Your task to perform on an android device: change keyboard looks Image 0: 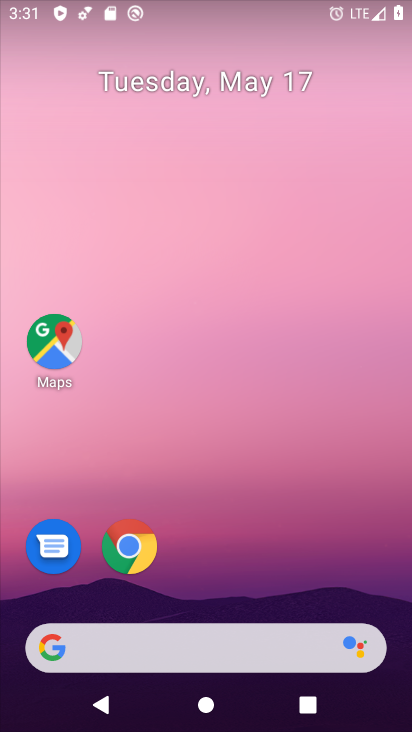
Step 0: drag from (361, 521) to (326, 45)
Your task to perform on an android device: change keyboard looks Image 1: 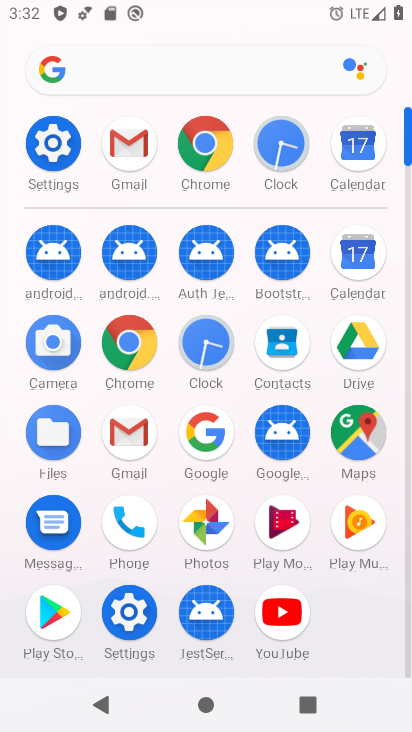
Step 1: click (38, 138)
Your task to perform on an android device: change keyboard looks Image 2: 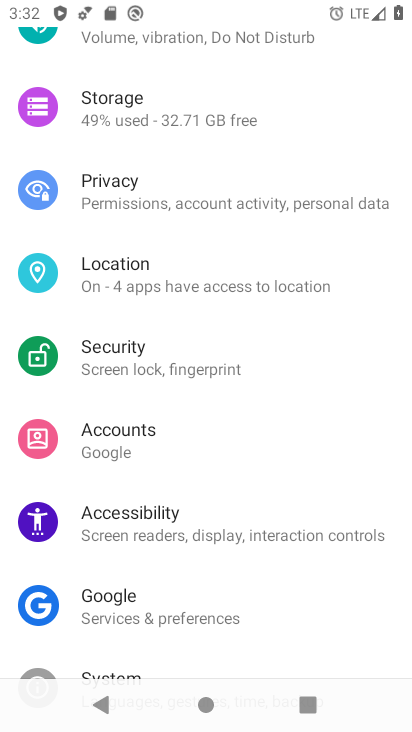
Step 2: drag from (148, 511) to (164, 372)
Your task to perform on an android device: change keyboard looks Image 3: 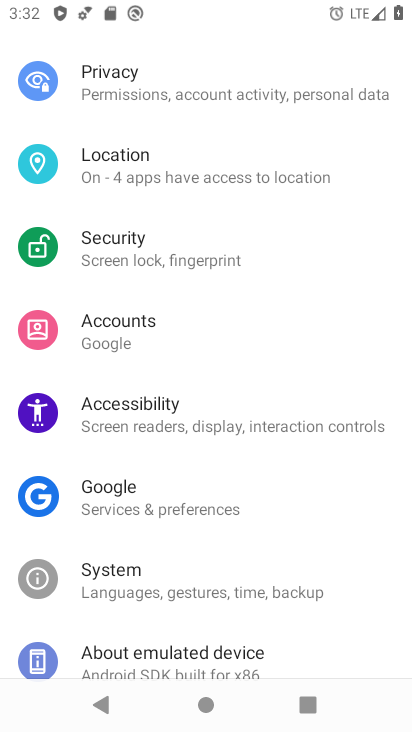
Step 3: click (130, 559)
Your task to perform on an android device: change keyboard looks Image 4: 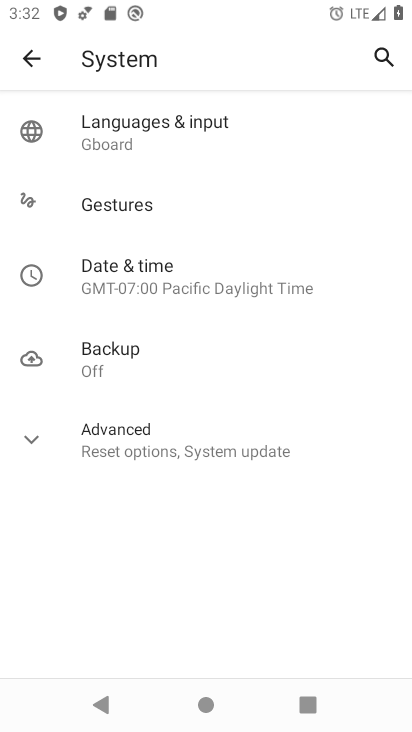
Step 4: click (157, 126)
Your task to perform on an android device: change keyboard looks Image 5: 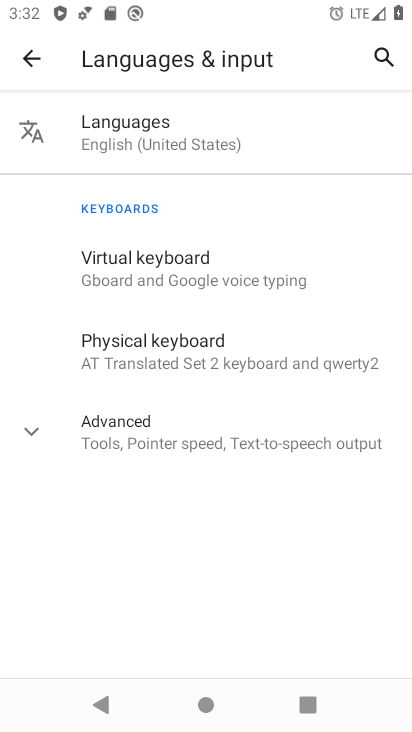
Step 5: click (149, 292)
Your task to perform on an android device: change keyboard looks Image 6: 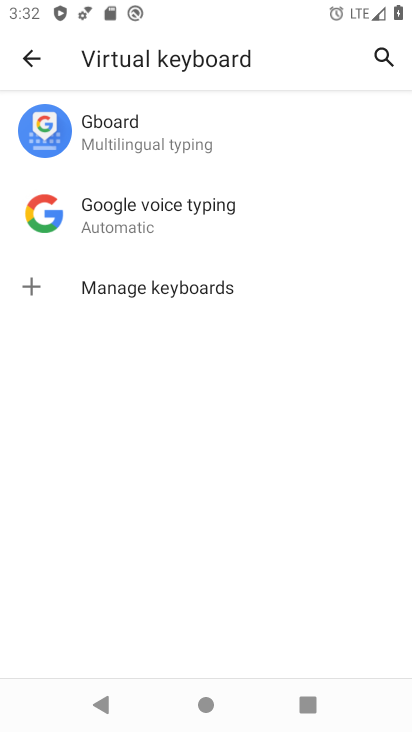
Step 6: click (184, 120)
Your task to perform on an android device: change keyboard looks Image 7: 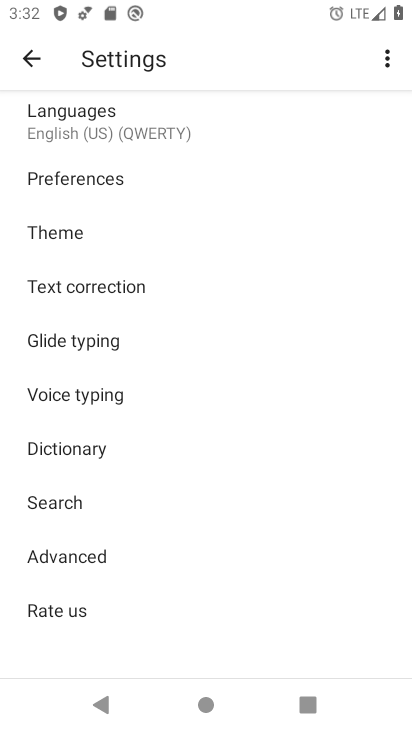
Step 7: click (128, 245)
Your task to perform on an android device: change keyboard looks Image 8: 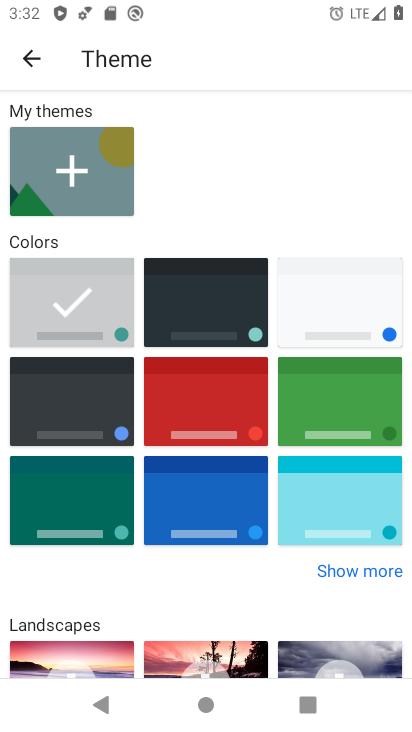
Step 8: click (163, 380)
Your task to perform on an android device: change keyboard looks Image 9: 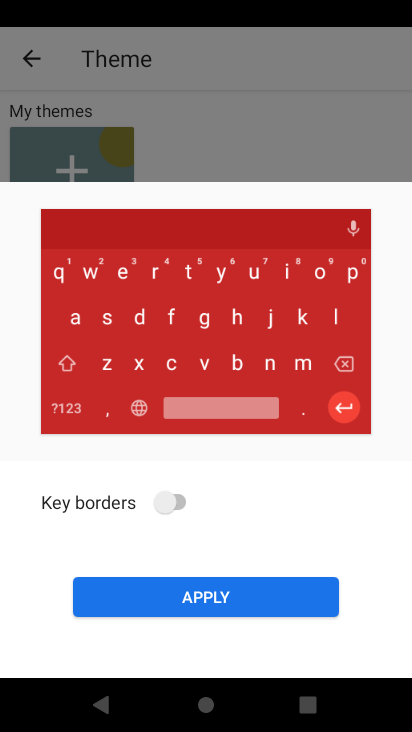
Step 9: click (168, 492)
Your task to perform on an android device: change keyboard looks Image 10: 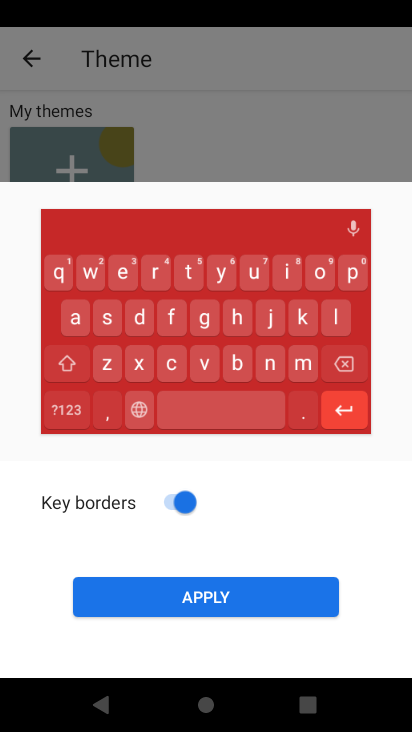
Step 10: click (208, 617)
Your task to perform on an android device: change keyboard looks Image 11: 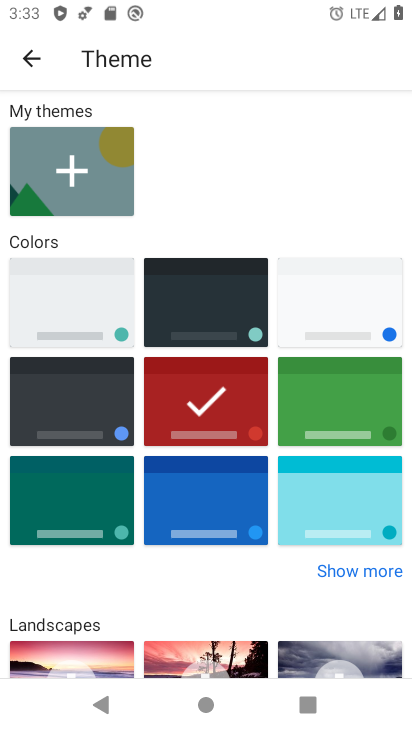
Step 11: task complete